Your task to perform on an android device: check google app version Image 0: 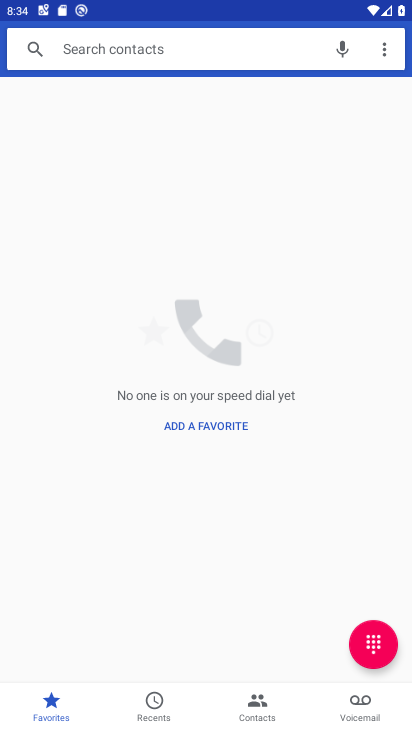
Step 0: press back button
Your task to perform on an android device: check google app version Image 1: 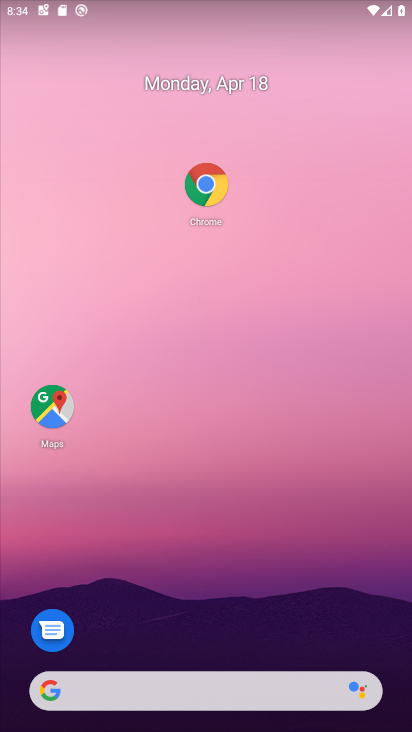
Step 1: drag from (118, 680) to (278, 181)
Your task to perform on an android device: check google app version Image 2: 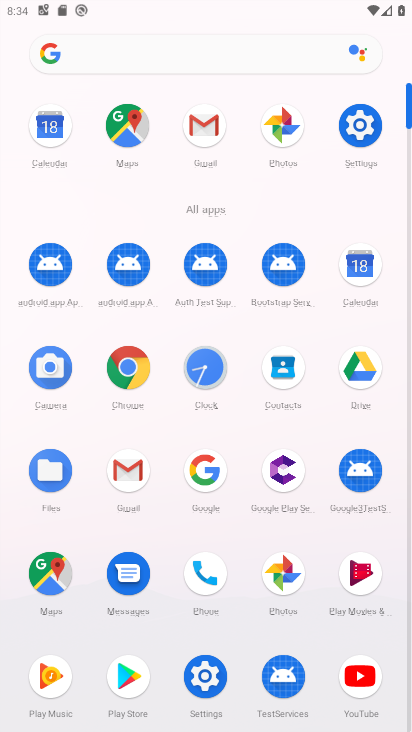
Step 2: click (368, 142)
Your task to perform on an android device: check google app version Image 3: 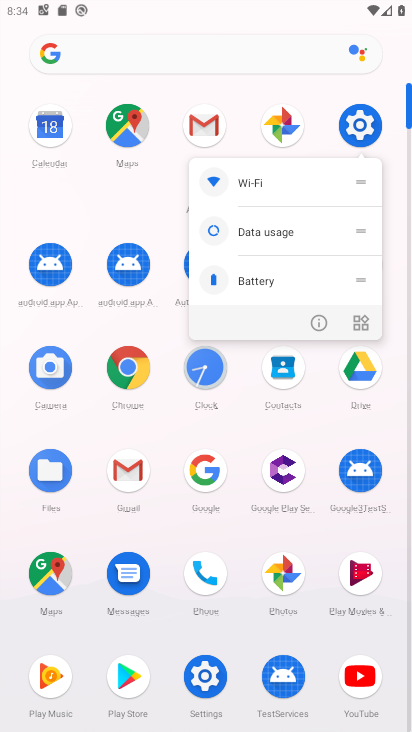
Step 3: click (363, 120)
Your task to perform on an android device: check google app version Image 4: 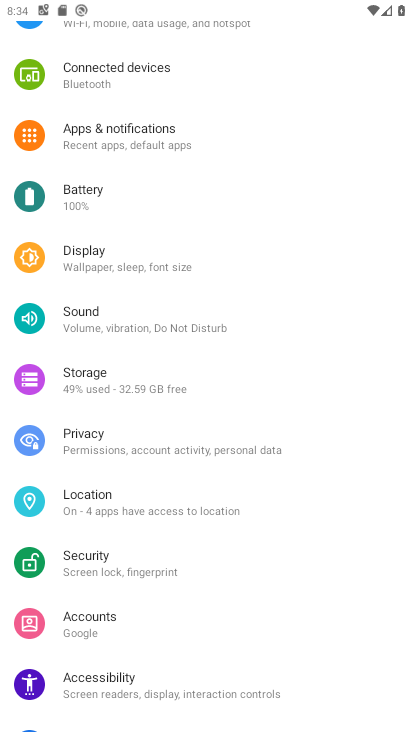
Step 4: click (251, 147)
Your task to perform on an android device: check google app version Image 5: 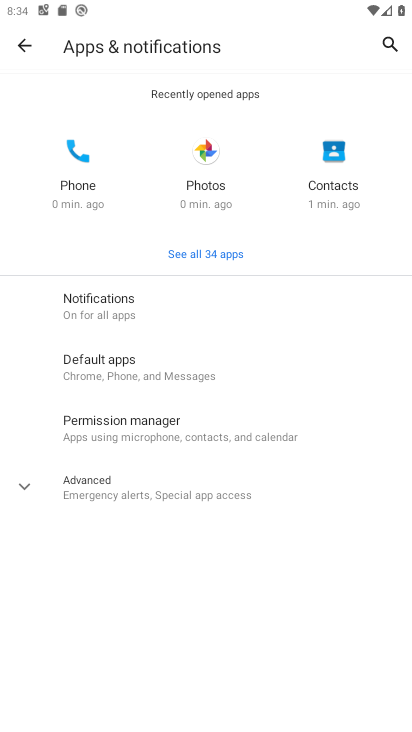
Step 5: click (196, 242)
Your task to perform on an android device: check google app version Image 6: 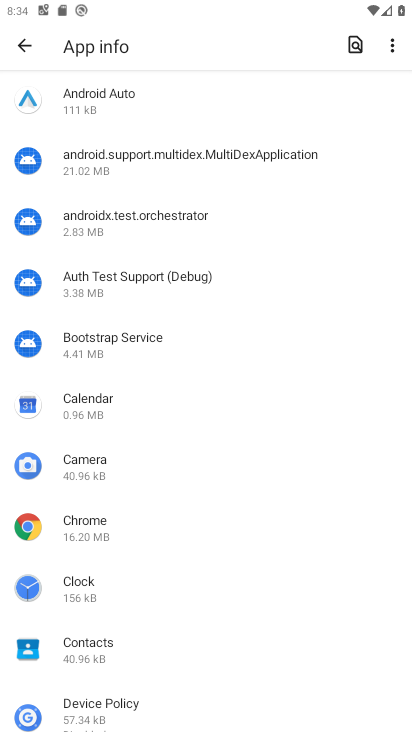
Step 6: drag from (173, 652) to (314, 220)
Your task to perform on an android device: check google app version Image 7: 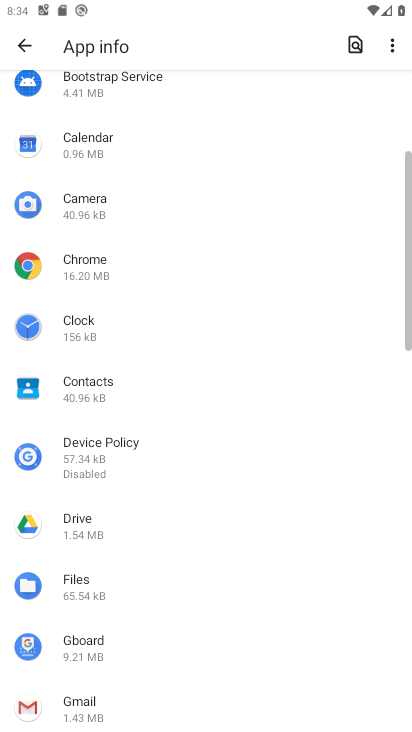
Step 7: drag from (219, 586) to (277, 350)
Your task to perform on an android device: check google app version Image 8: 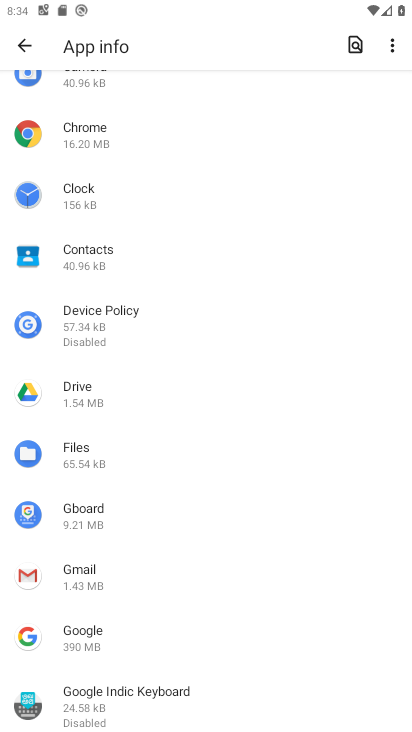
Step 8: click (141, 637)
Your task to perform on an android device: check google app version Image 9: 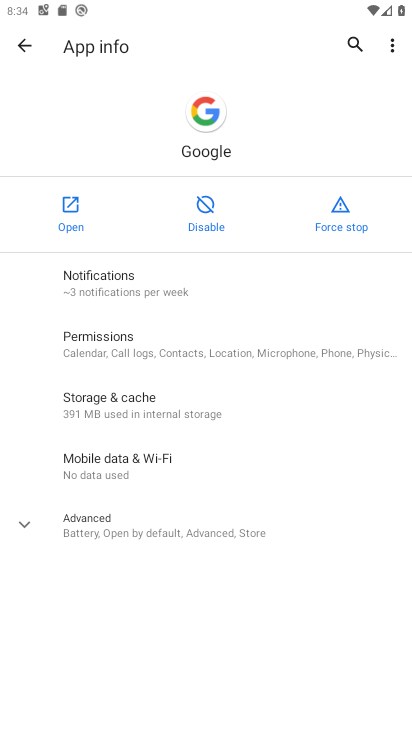
Step 9: click (163, 531)
Your task to perform on an android device: check google app version Image 10: 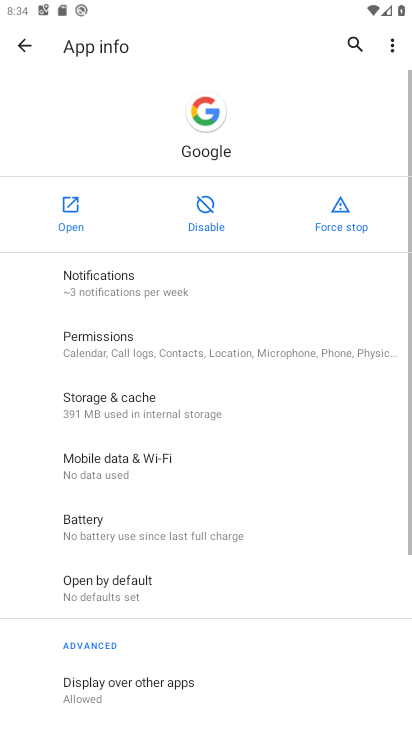
Step 10: task complete